Your task to perform on an android device: check out phone information Image 0: 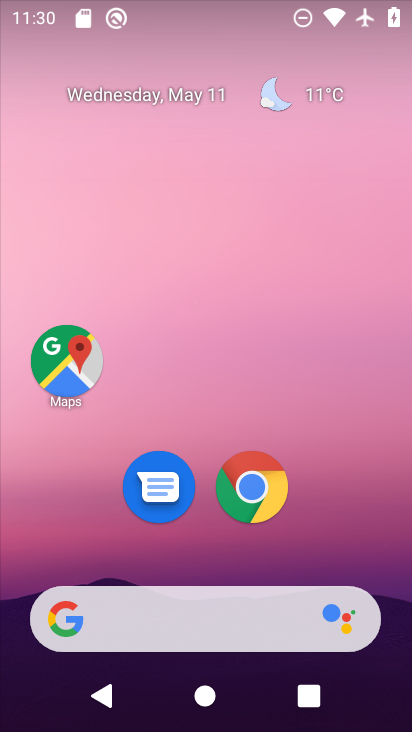
Step 0: drag from (371, 535) to (228, 12)
Your task to perform on an android device: check out phone information Image 1: 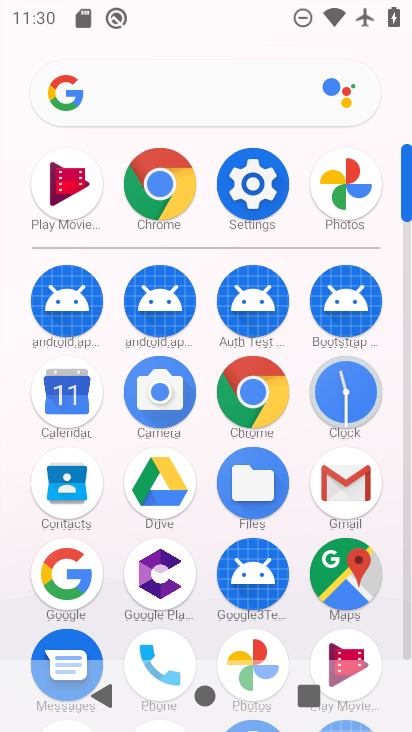
Step 1: drag from (14, 534) to (18, 293)
Your task to perform on an android device: check out phone information Image 2: 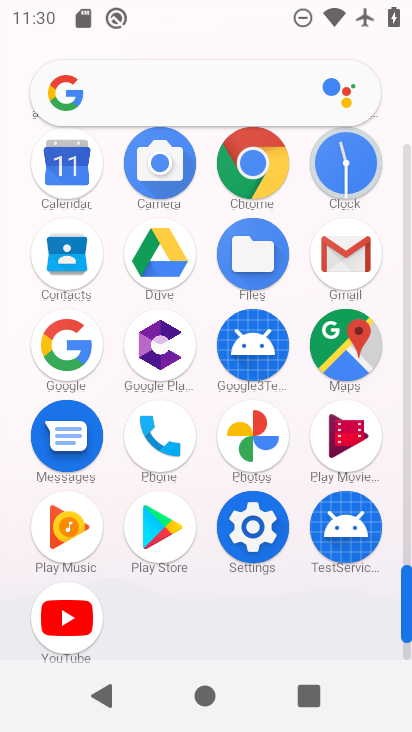
Step 2: click (258, 526)
Your task to perform on an android device: check out phone information Image 3: 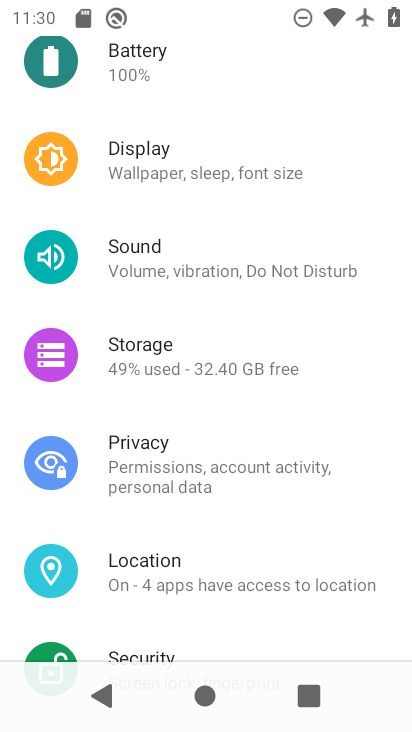
Step 3: drag from (261, 571) to (261, 152)
Your task to perform on an android device: check out phone information Image 4: 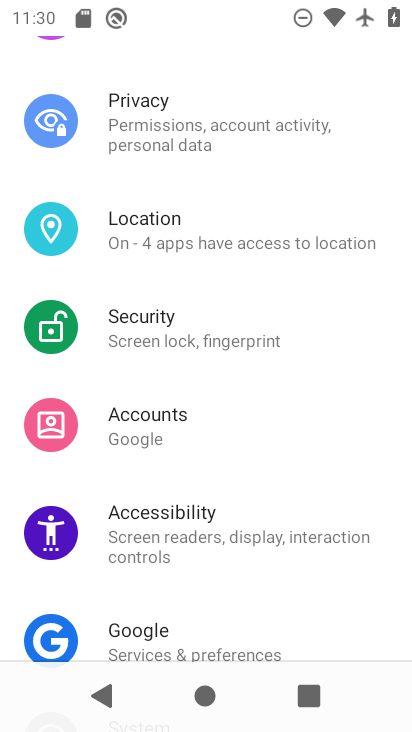
Step 4: drag from (232, 591) to (227, 167)
Your task to perform on an android device: check out phone information Image 5: 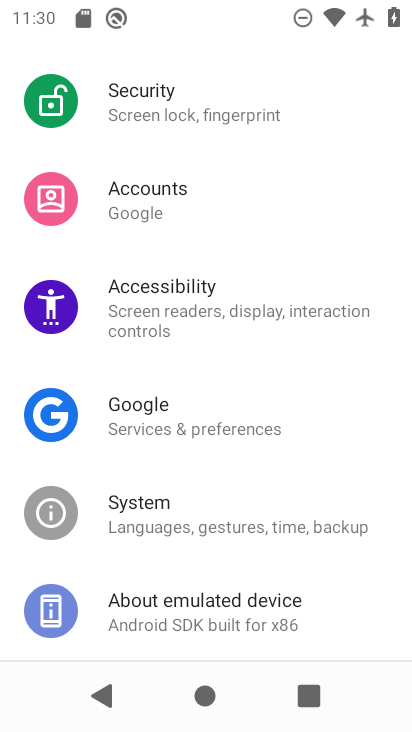
Step 5: drag from (213, 530) to (259, 185)
Your task to perform on an android device: check out phone information Image 6: 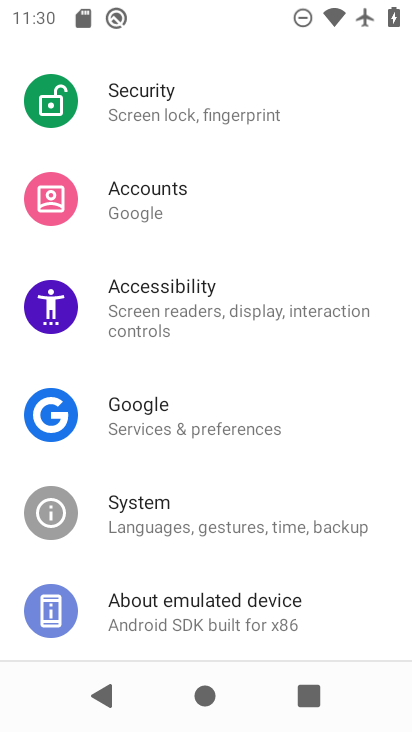
Step 6: drag from (208, 538) to (238, 138)
Your task to perform on an android device: check out phone information Image 7: 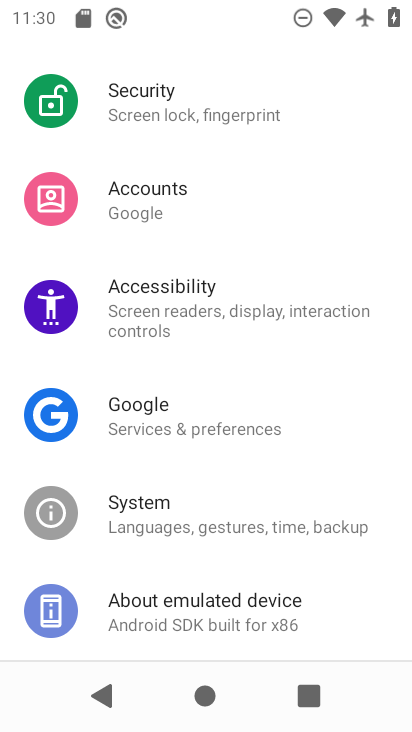
Step 7: click (171, 606)
Your task to perform on an android device: check out phone information Image 8: 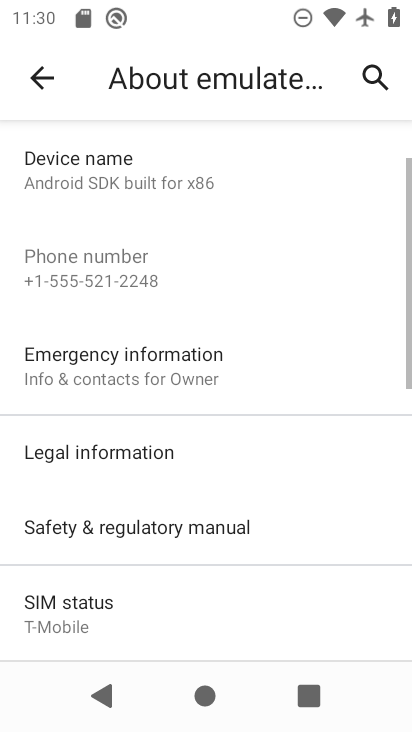
Step 8: task complete